Your task to perform on an android device: turn off improve location accuracy Image 0: 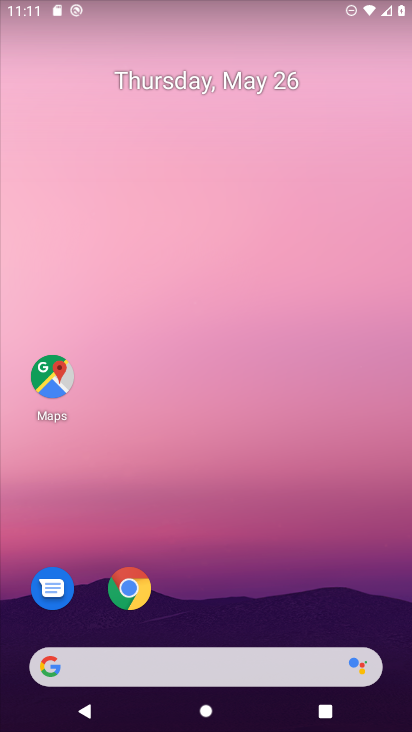
Step 0: drag from (386, 605) to (324, 50)
Your task to perform on an android device: turn off improve location accuracy Image 1: 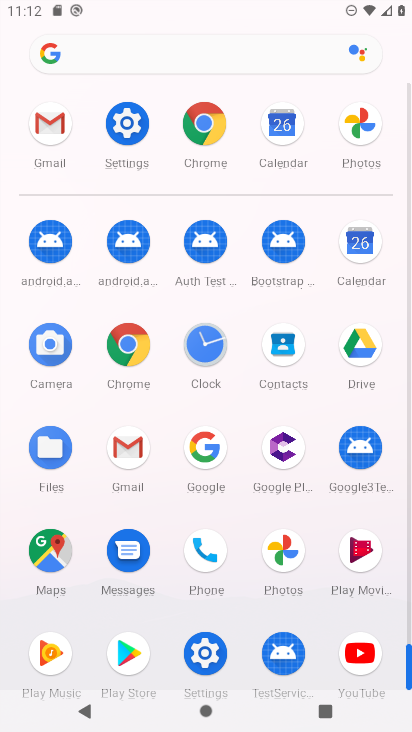
Step 1: click (202, 653)
Your task to perform on an android device: turn off improve location accuracy Image 2: 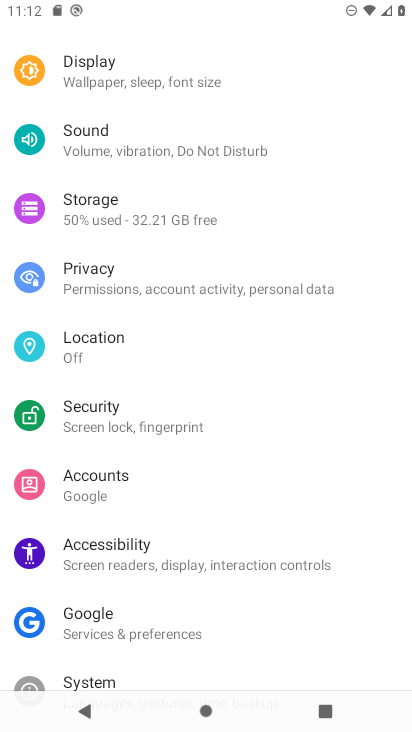
Step 2: click (98, 336)
Your task to perform on an android device: turn off improve location accuracy Image 3: 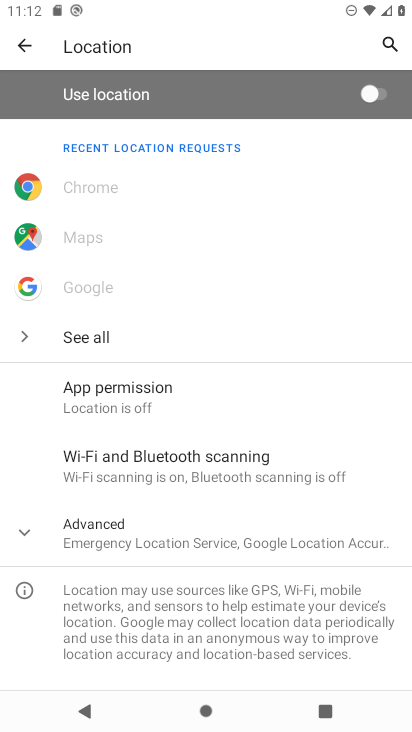
Step 3: click (21, 536)
Your task to perform on an android device: turn off improve location accuracy Image 4: 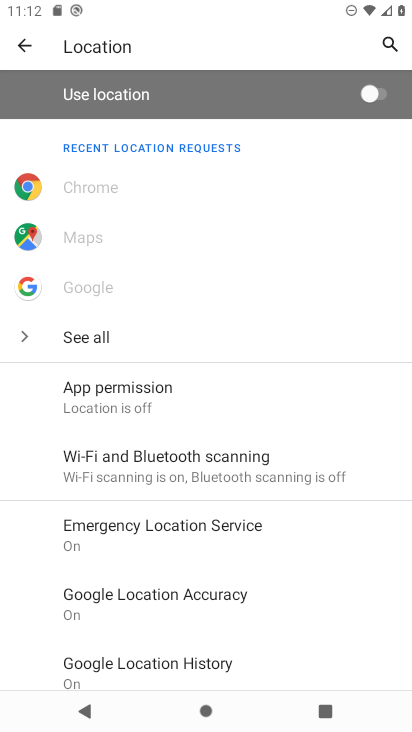
Step 4: click (122, 589)
Your task to perform on an android device: turn off improve location accuracy Image 5: 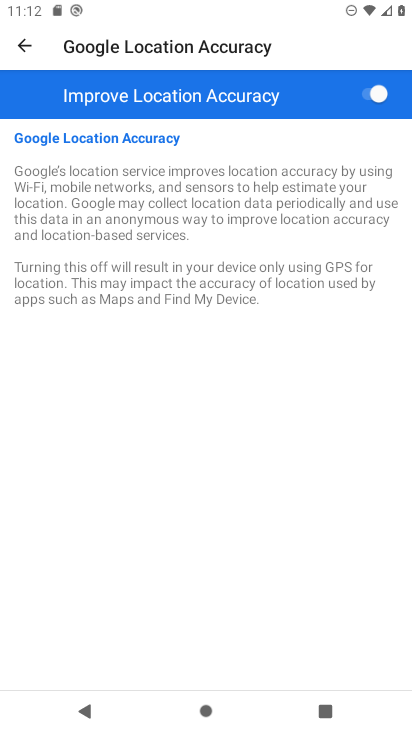
Step 5: click (360, 90)
Your task to perform on an android device: turn off improve location accuracy Image 6: 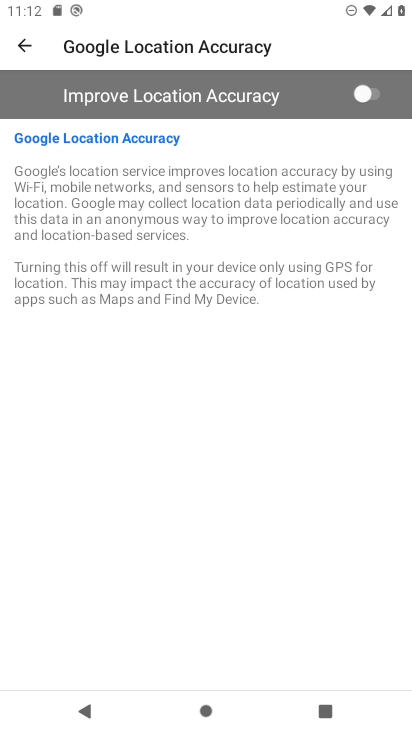
Step 6: task complete